Your task to perform on an android device: Open Google Maps and go to "Timeline" Image 0: 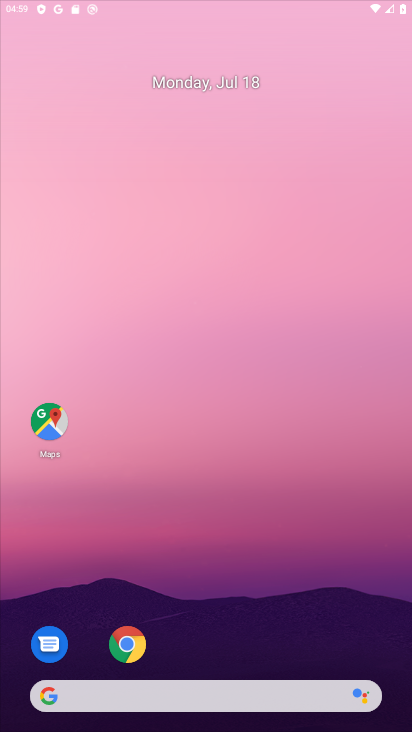
Step 0: press home button
Your task to perform on an android device: Open Google Maps and go to "Timeline" Image 1: 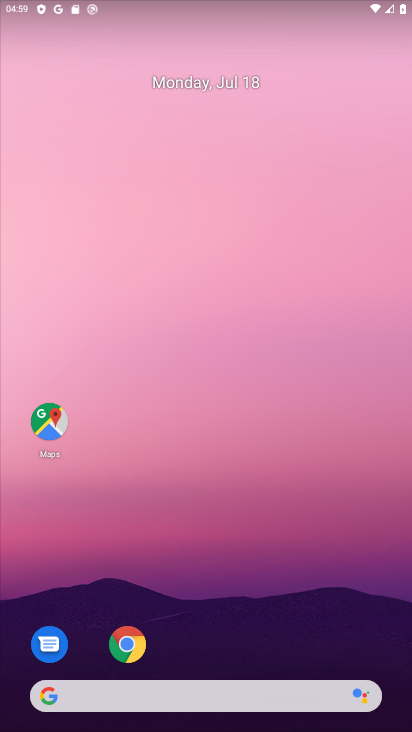
Step 1: drag from (214, 446) to (236, 57)
Your task to perform on an android device: Open Google Maps and go to "Timeline" Image 2: 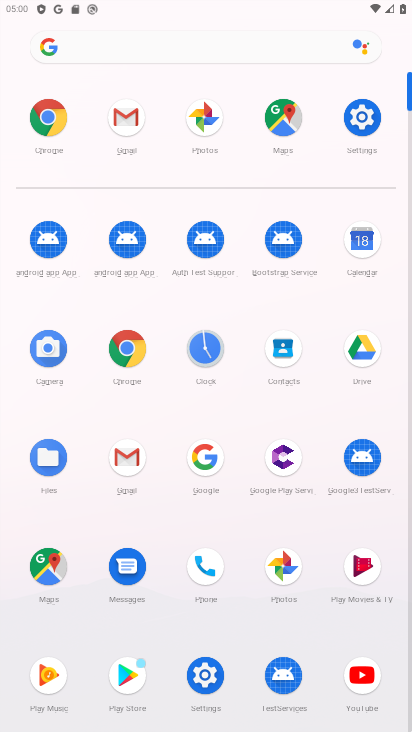
Step 2: click (286, 124)
Your task to perform on an android device: Open Google Maps and go to "Timeline" Image 3: 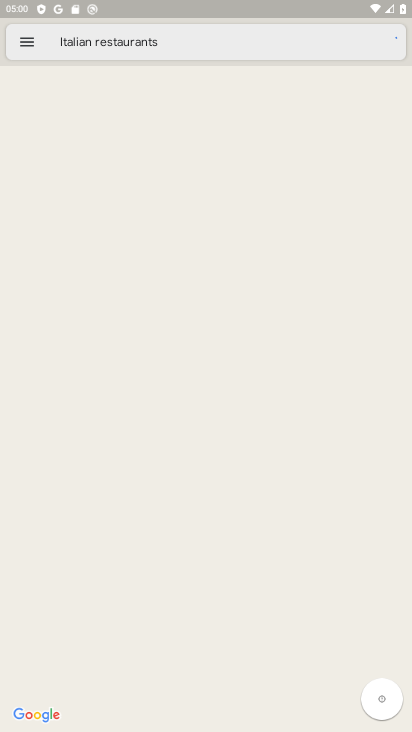
Step 3: click (20, 45)
Your task to perform on an android device: Open Google Maps and go to "Timeline" Image 4: 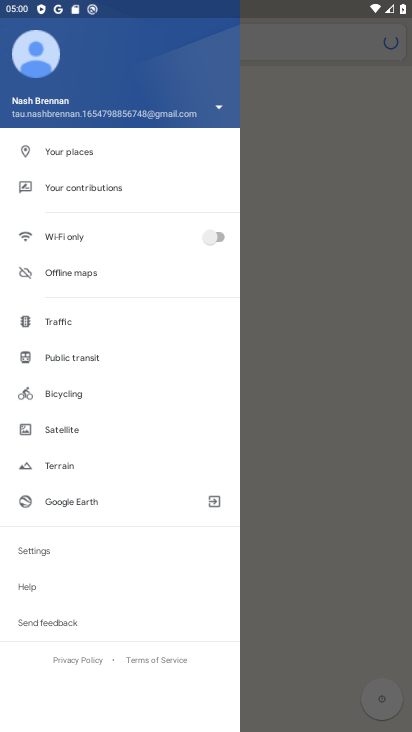
Step 4: task complete